Your task to perform on an android device: star an email in the gmail app Image 0: 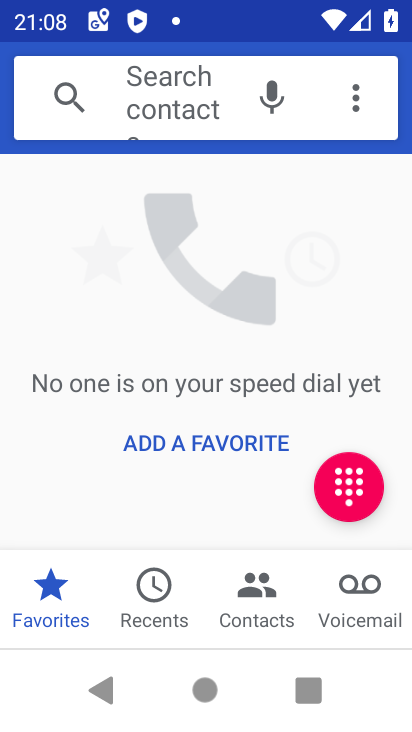
Step 0: press home button
Your task to perform on an android device: star an email in the gmail app Image 1: 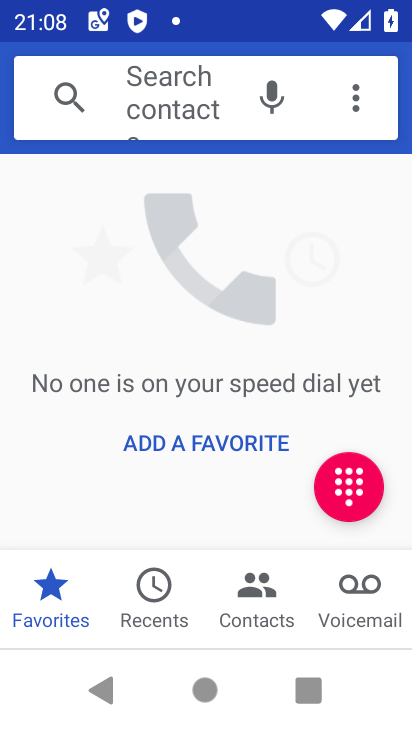
Step 1: press home button
Your task to perform on an android device: star an email in the gmail app Image 2: 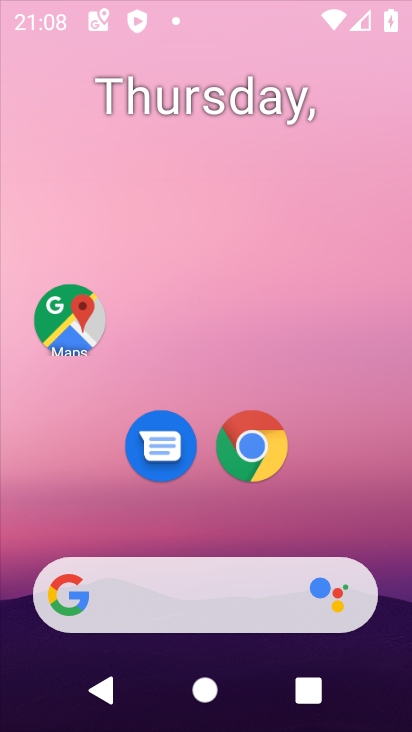
Step 2: press home button
Your task to perform on an android device: star an email in the gmail app Image 3: 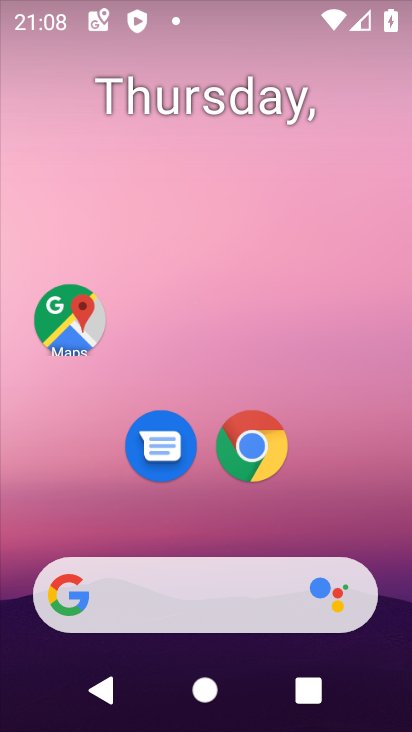
Step 3: press home button
Your task to perform on an android device: star an email in the gmail app Image 4: 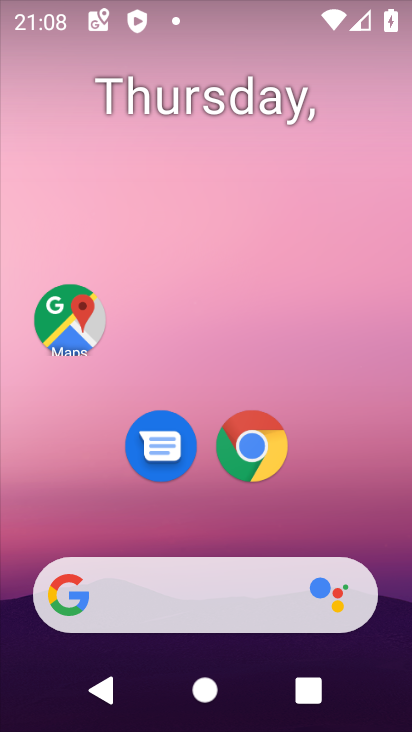
Step 4: drag from (380, 546) to (386, 512)
Your task to perform on an android device: star an email in the gmail app Image 5: 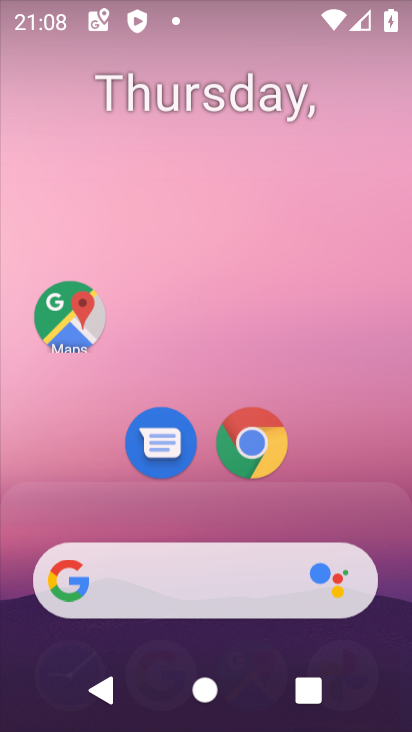
Step 5: drag from (386, 512) to (384, 319)
Your task to perform on an android device: star an email in the gmail app Image 6: 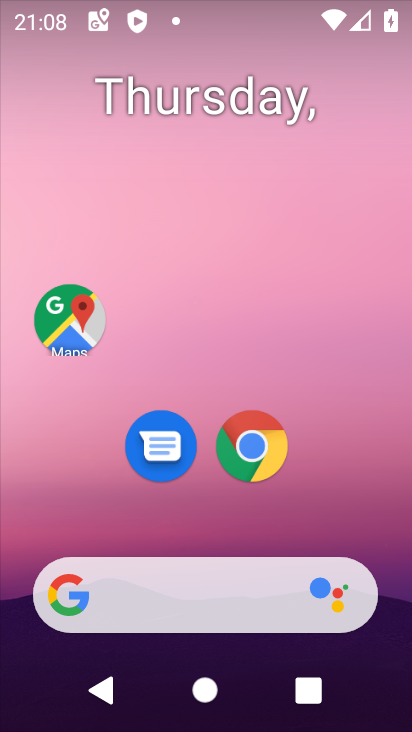
Step 6: drag from (382, 326) to (374, 4)
Your task to perform on an android device: star an email in the gmail app Image 7: 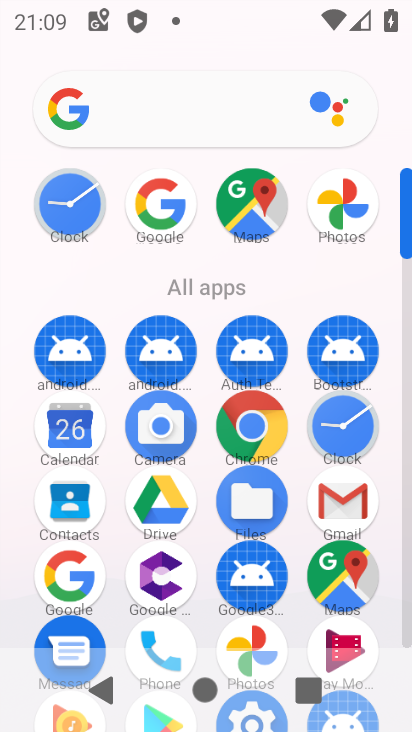
Step 7: click (329, 491)
Your task to perform on an android device: star an email in the gmail app Image 8: 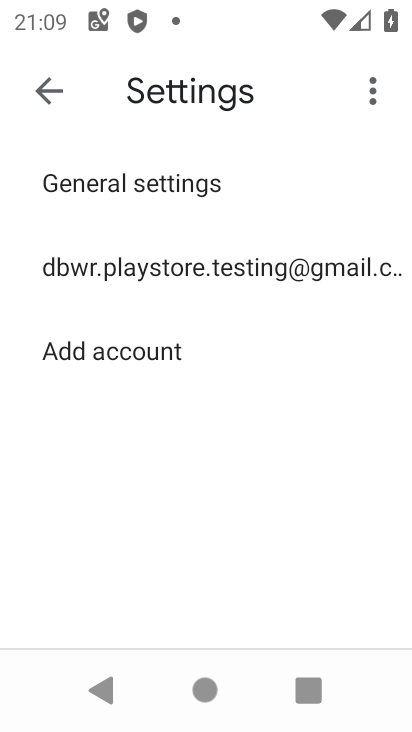
Step 8: click (41, 86)
Your task to perform on an android device: star an email in the gmail app Image 9: 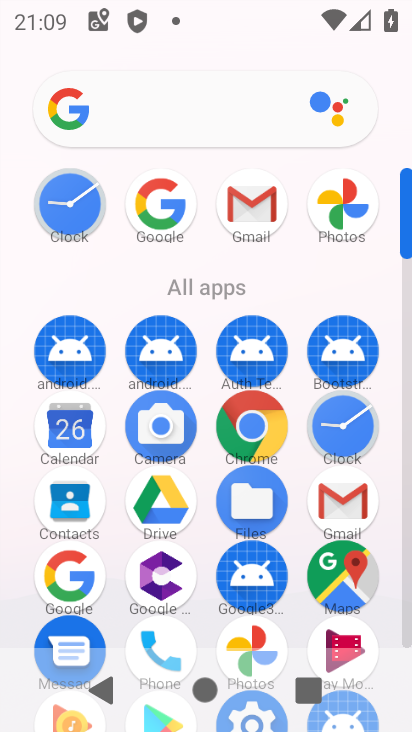
Step 9: click (336, 495)
Your task to perform on an android device: star an email in the gmail app Image 10: 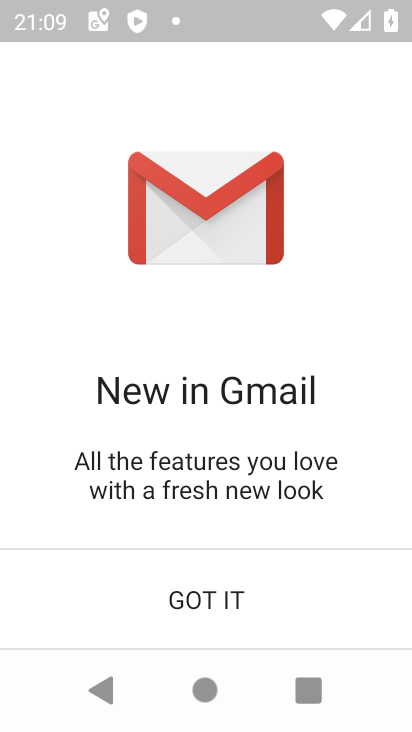
Step 10: click (218, 610)
Your task to perform on an android device: star an email in the gmail app Image 11: 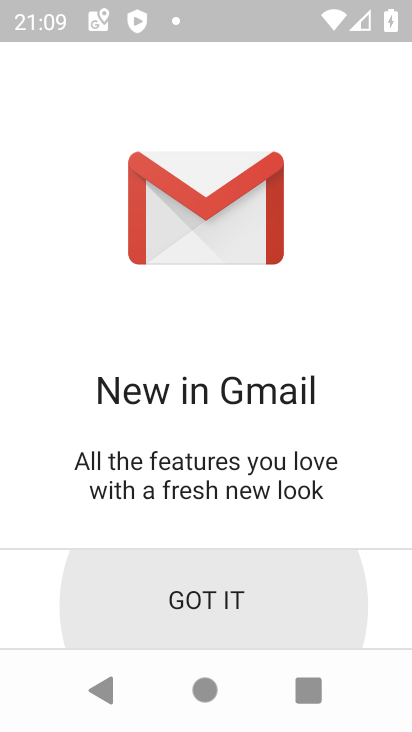
Step 11: click (218, 610)
Your task to perform on an android device: star an email in the gmail app Image 12: 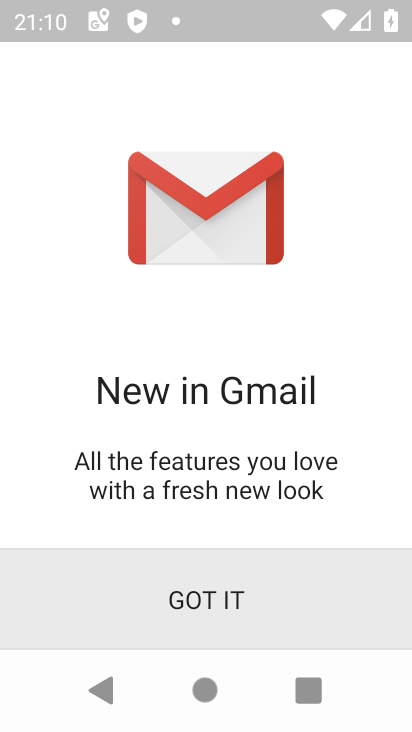
Step 12: click (218, 610)
Your task to perform on an android device: star an email in the gmail app Image 13: 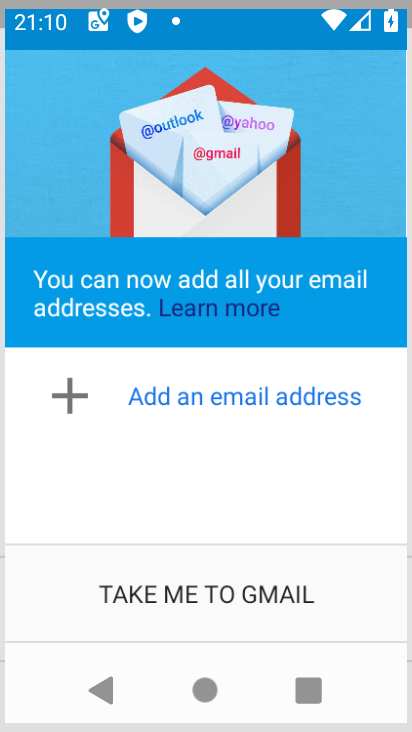
Step 13: click (218, 610)
Your task to perform on an android device: star an email in the gmail app Image 14: 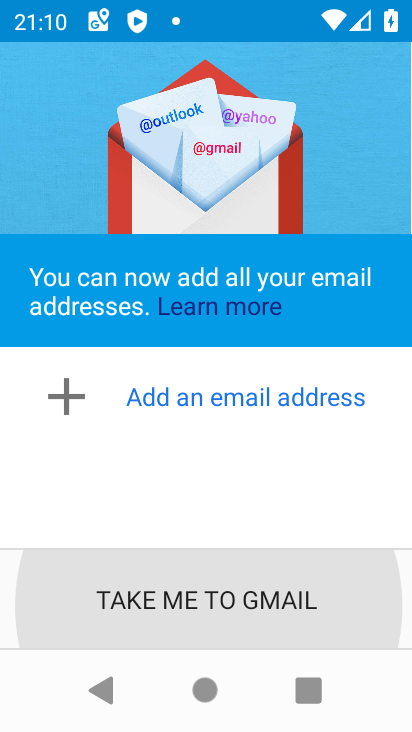
Step 14: click (218, 610)
Your task to perform on an android device: star an email in the gmail app Image 15: 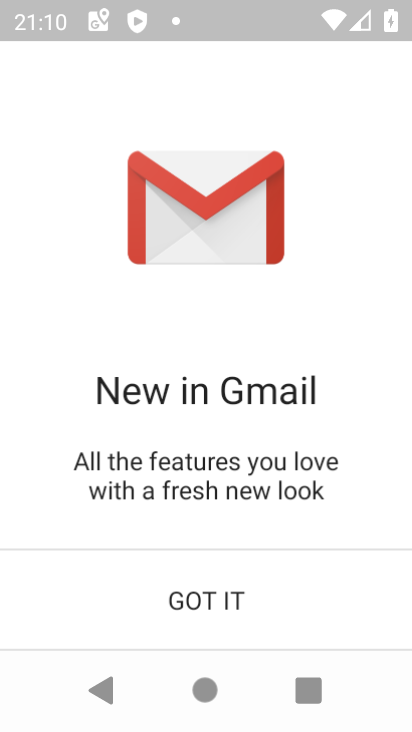
Step 15: click (218, 610)
Your task to perform on an android device: star an email in the gmail app Image 16: 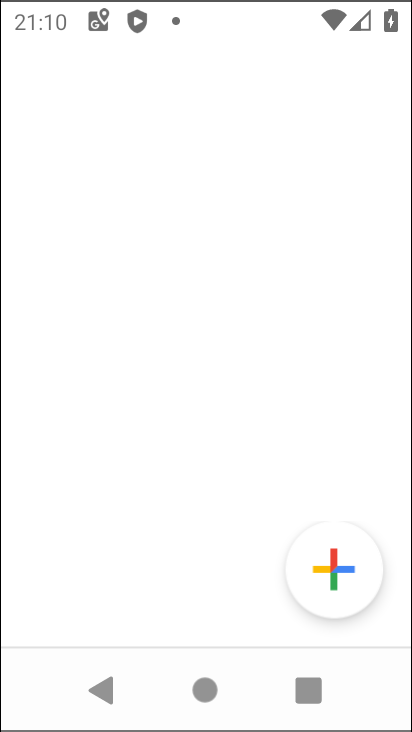
Step 16: click (218, 610)
Your task to perform on an android device: star an email in the gmail app Image 17: 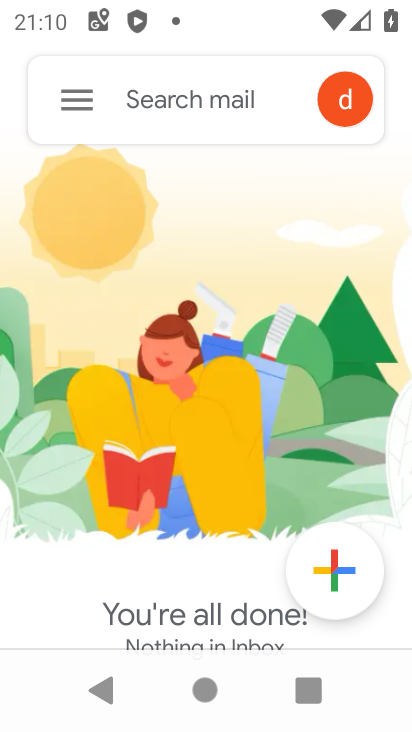
Step 17: click (73, 109)
Your task to perform on an android device: star an email in the gmail app Image 18: 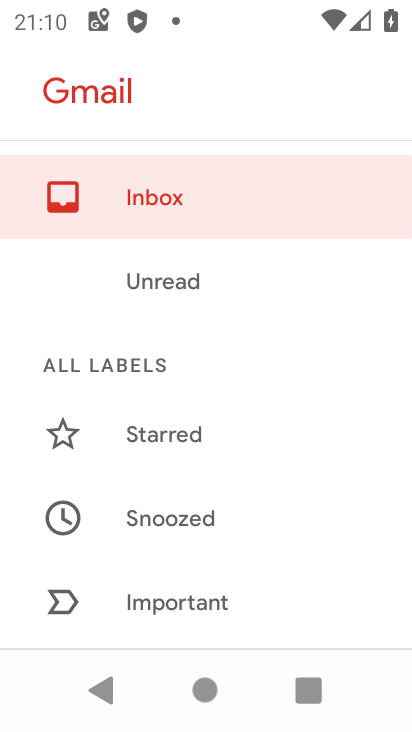
Step 18: task complete